Your task to perform on an android device: Is it going to rain tomorrow? Image 0: 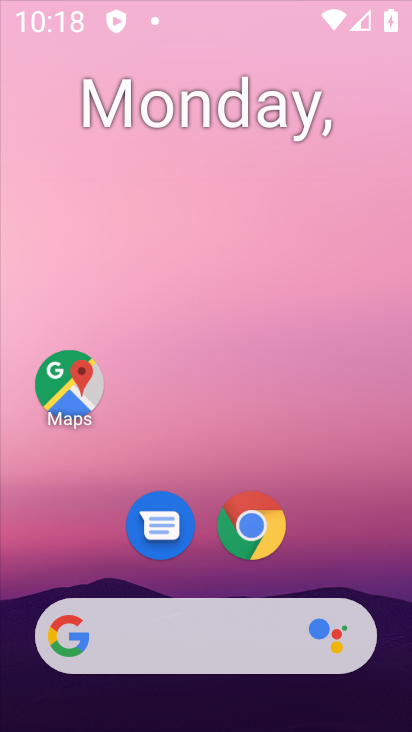
Step 0: click (60, 385)
Your task to perform on an android device: Is it going to rain tomorrow? Image 1: 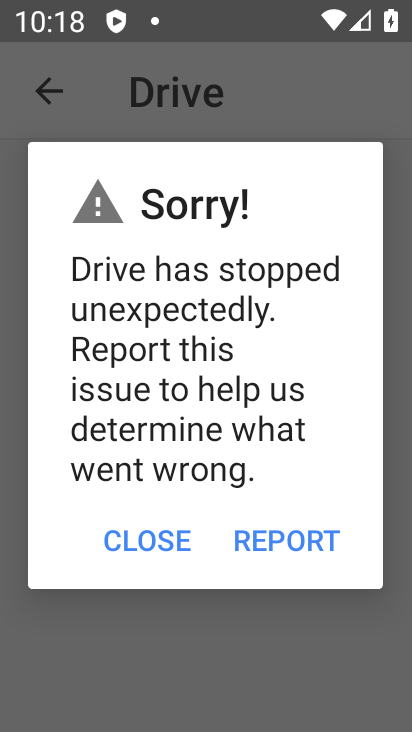
Step 1: click (150, 536)
Your task to perform on an android device: Is it going to rain tomorrow? Image 2: 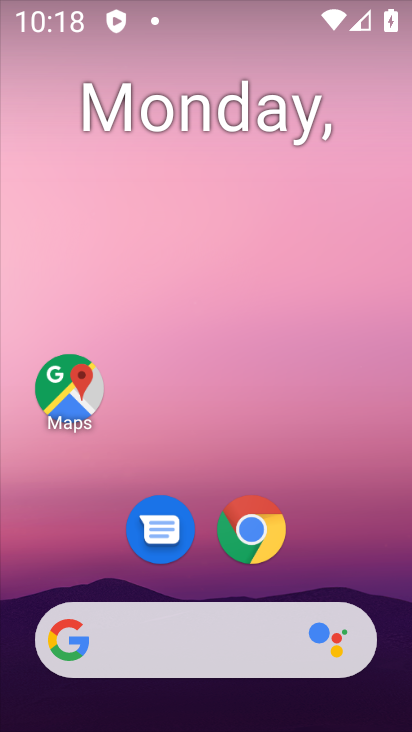
Step 2: click (215, 633)
Your task to perform on an android device: Is it going to rain tomorrow? Image 3: 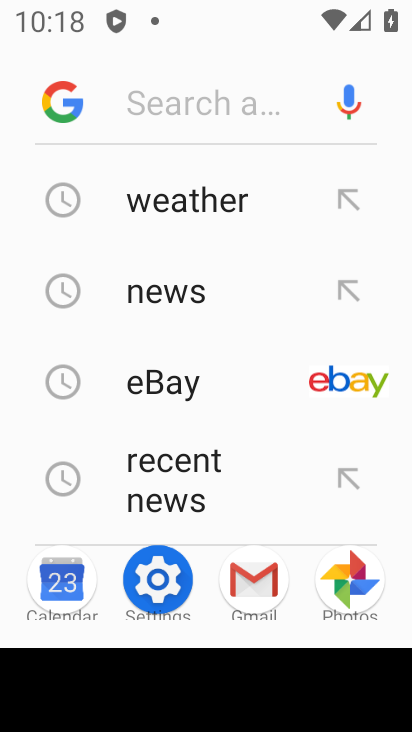
Step 3: click (172, 201)
Your task to perform on an android device: Is it going to rain tomorrow? Image 4: 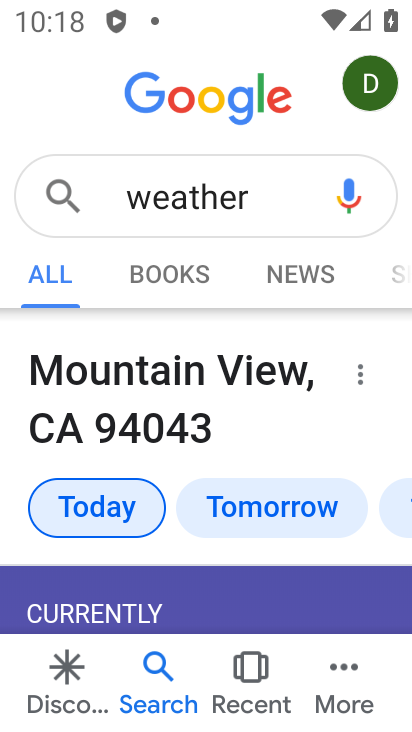
Step 4: click (241, 500)
Your task to perform on an android device: Is it going to rain tomorrow? Image 5: 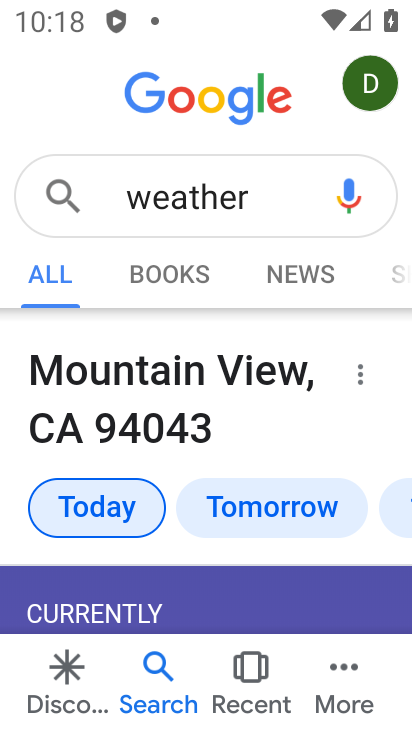
Step 5: click (241, 500)
Your task to perform on an android device: Is it going to rain tomorrow? Image 6: 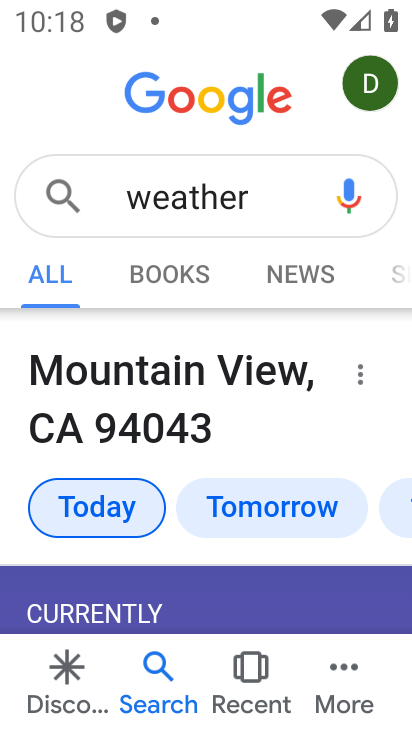
Step 6: click (241, 500)
Your task to perform on an android device: Is it going to rain tomorrow? Image 7: 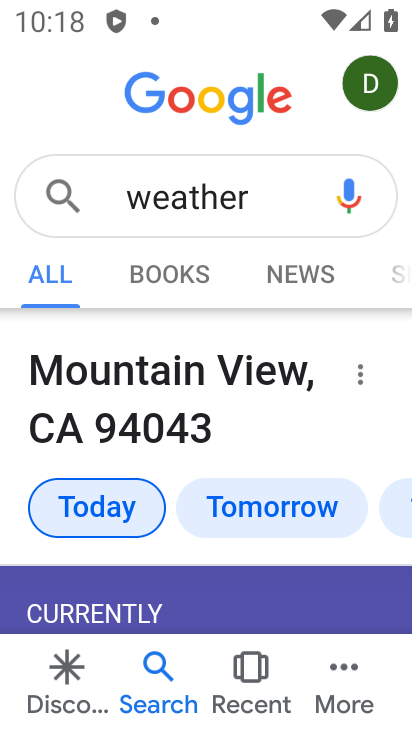
Step 7: click (241, 500)
Your task to perform on an android device: Is it going to rain tomorrow? Image 8: 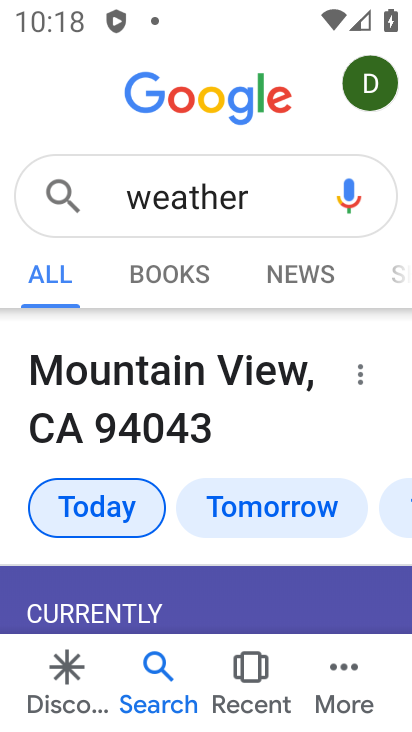
Step 8: click (241, 500)
Your task to perform on an android device: Is it going to rain tomorrow? Image 9: 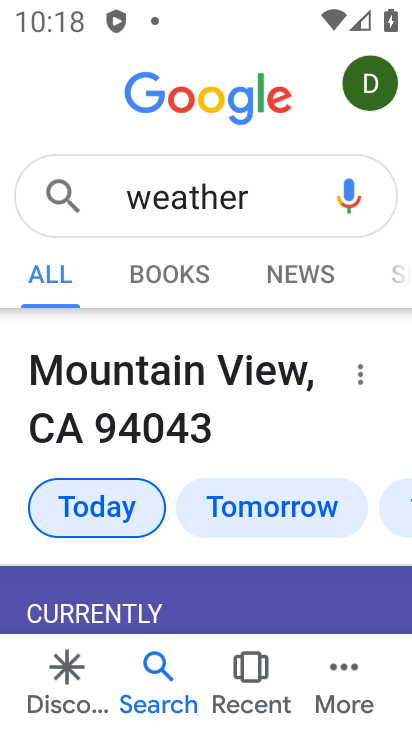
Step 9: click (241, 500)
Your task to perform on an android device: Is it going to rain tomorrow? Image 10: 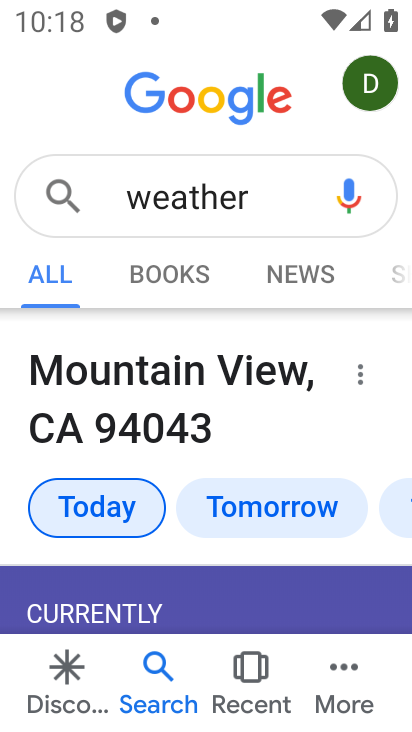
Step 10: click (241, 500)
Your task to perform on an android device: Is it going to rain tomorrow? Image 11: 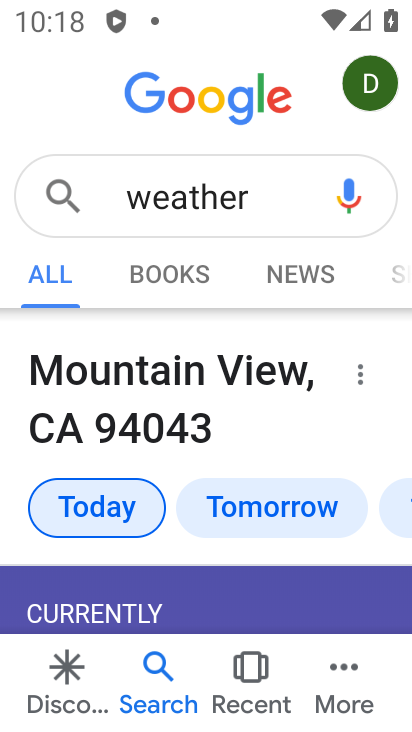
Step 11: click (241, 500)
Your task to perform on an android device: Is it going to rain tomorrow? Image 12: 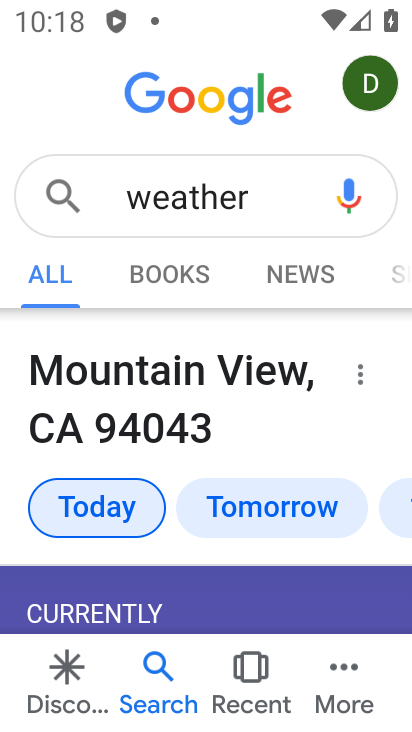
Step 12: click (241, 500)
Your task to perform on an android device: Is it going to rain tomorrow? Image 13: 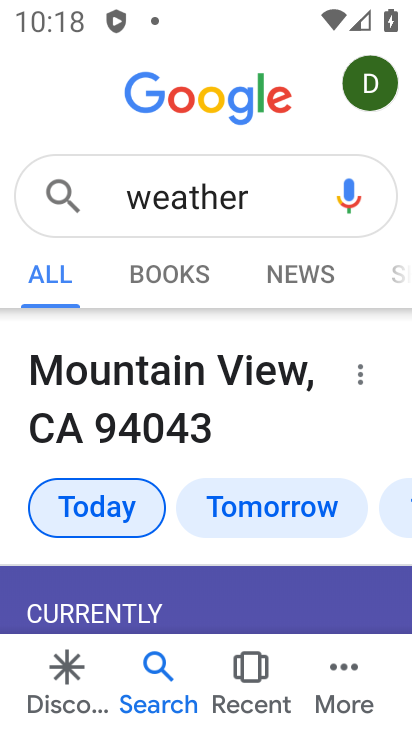
Step 13: click (241, 500)
Your task to perform on an android device: Is it going to rain tomorrow? Image 14: 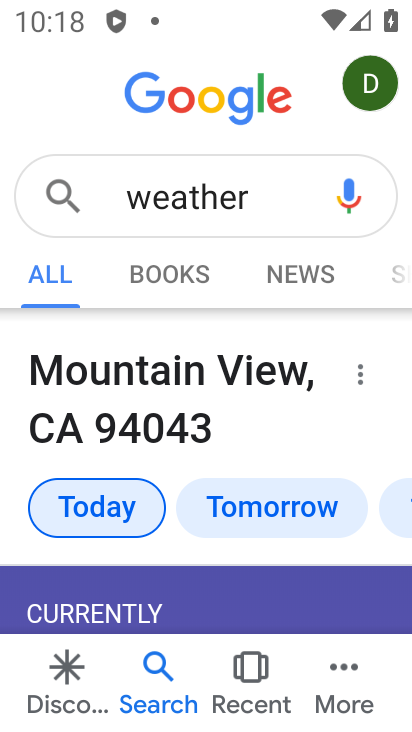
Step 14: click (241, 500)
Your task to perform on an android device: Is it going to rain tomorrow? Image 15: 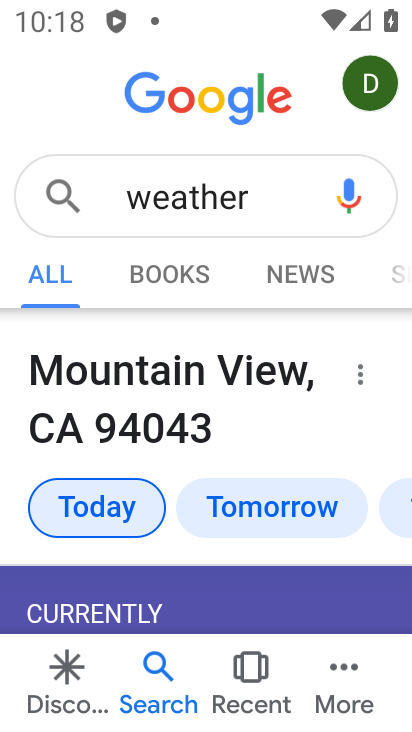
Step 15: click (241, 500)
Your task to perform on an android device: Is it going to rain tomorrow? Image 16: 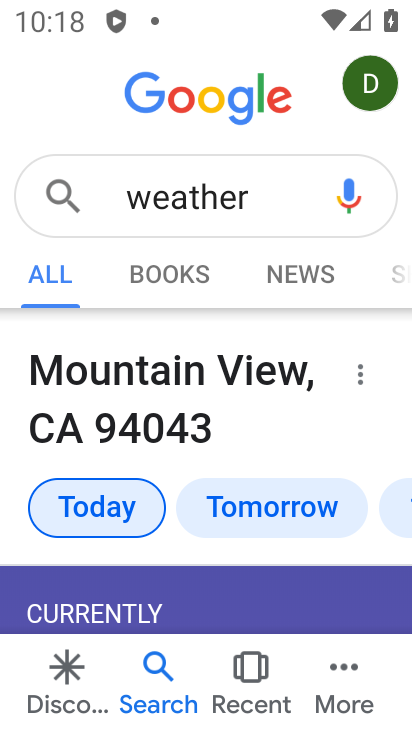
Step 16: click (241, 500)
Your task to perform on an android device: Is it going to rain tomorrow? Image 17: 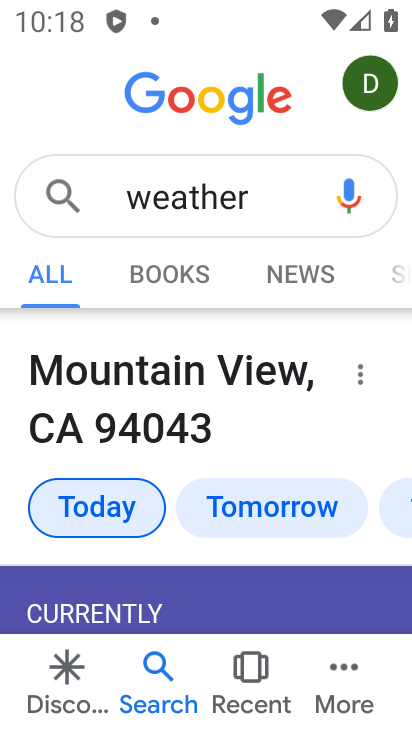
Step 17: click (241, 500)
Your task to perform on an android device: Is it going to rain tomorrow? Image 18: 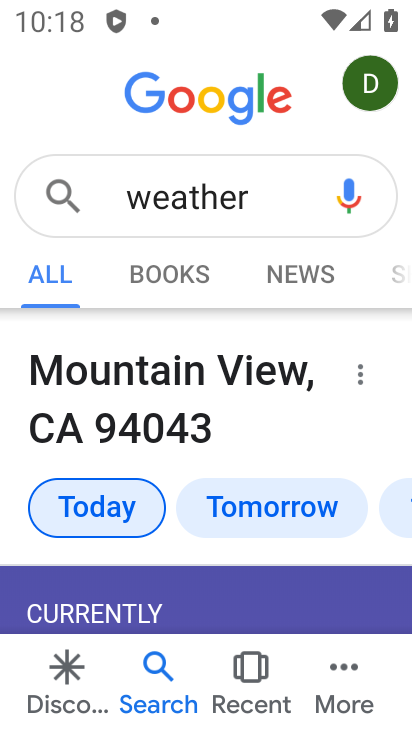
Step 18: click (241, 500)
Your task to perform on an android device: Is it going to rain tomorrow? Image 19: 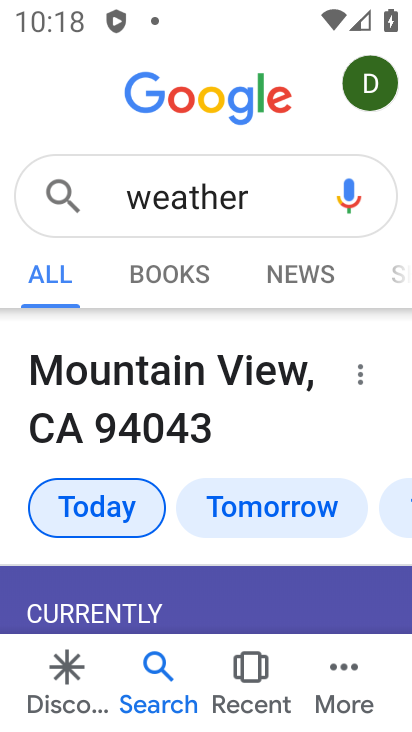
Step 19: click (241, 500)
Your task to perform on an android device: Is it going to rain tomorrow? Image 20: 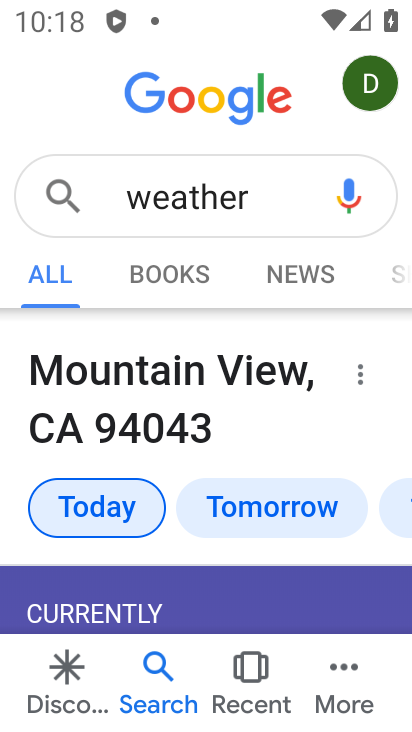
Step 20: click (241, 500)
Your task to perform on an android device: Is it going to rain tomorrow? Image 21: 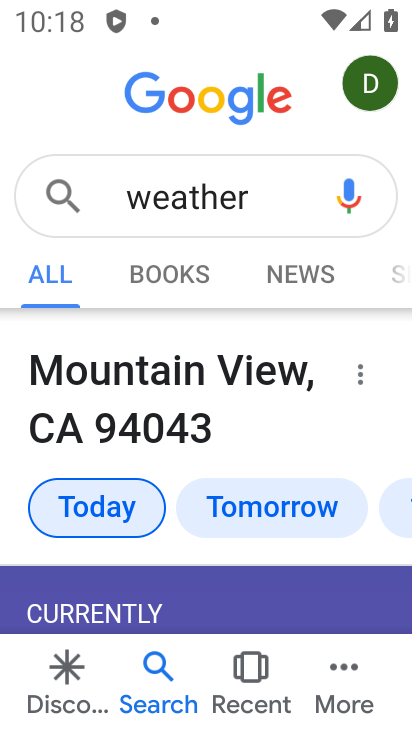
Step 21: click (241, 500)
Your task to perform on an android device: Is it going to rain tomorrow? Image 22: 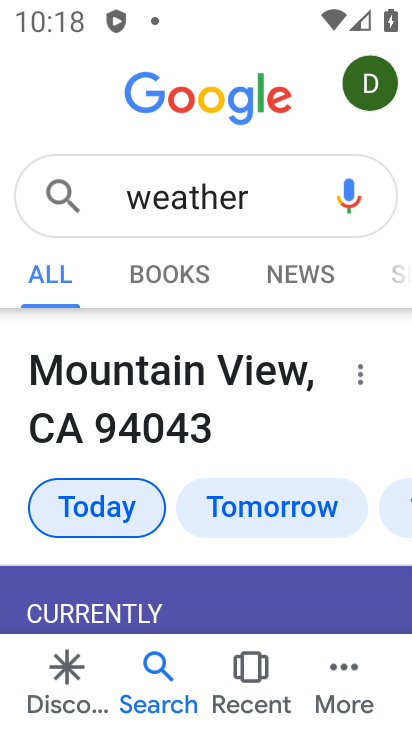
Step 22: click (314, 516)
Your task to perform on an android device: Is it going to rain tomorrow? Image 23: 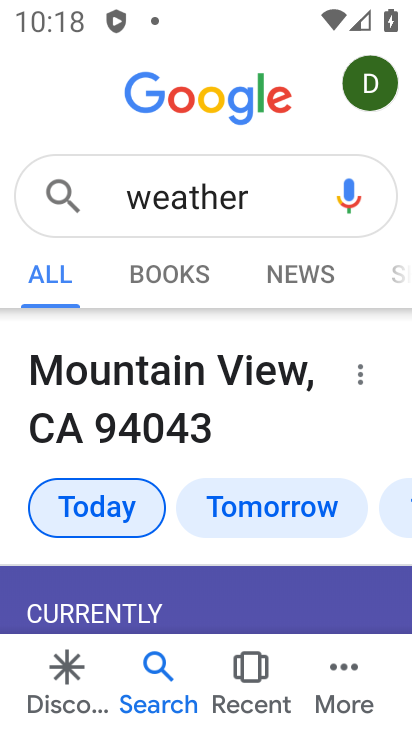
Step 23: click (314, 516)
Your task to perform on an android device: Is it going to rain tomorrow? Image 24: 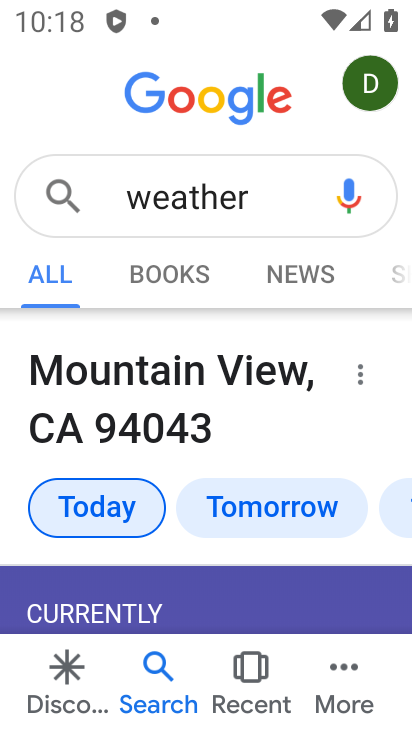
Step 24: click (314, 516)
Your task to perform on an android device: Is it going to rain tomorrow? Image 25: 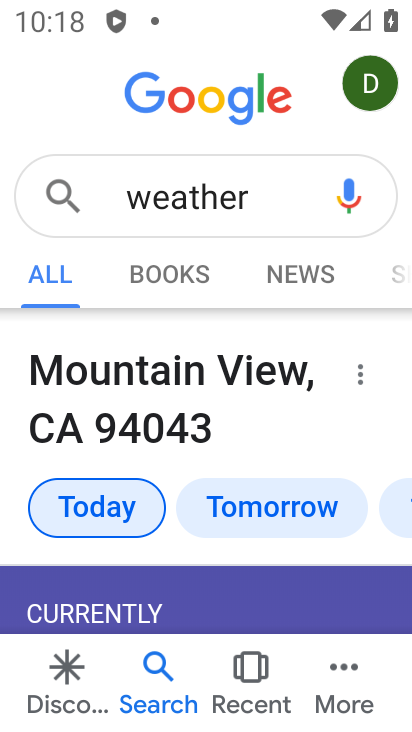
Step 25: click (314, 516)
Your task to perform on an android device: Is it going to rain tomorrow? Image 26: 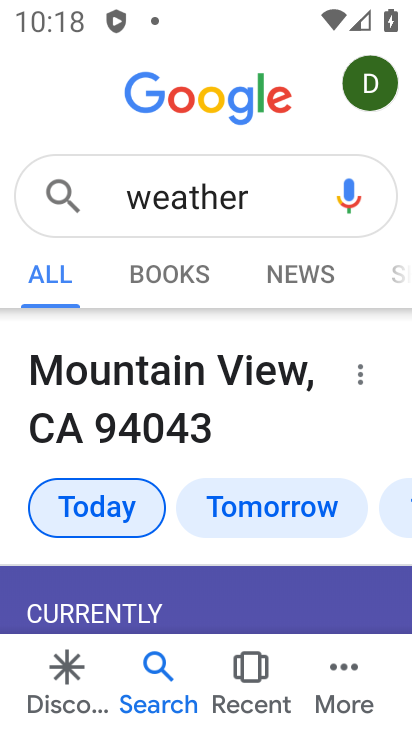
Step 26: click (314, 516)
Your task to perform on an android device: Is it going to rain tomorrow? Image 27: 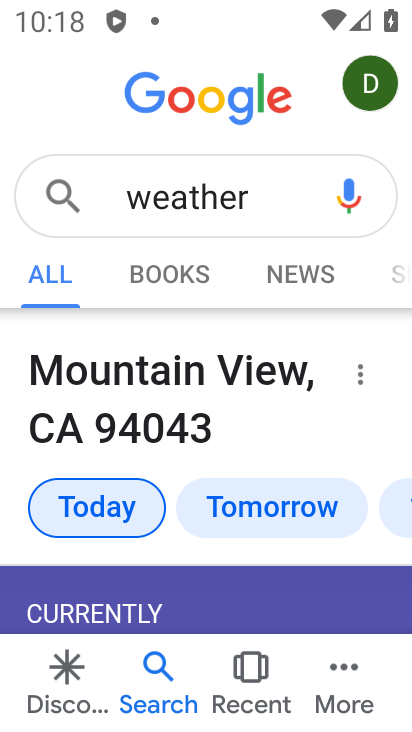
Step 27: click (314, 516)
Your task to perform on an android device: Is it going to rain tomorrow? Image 28: 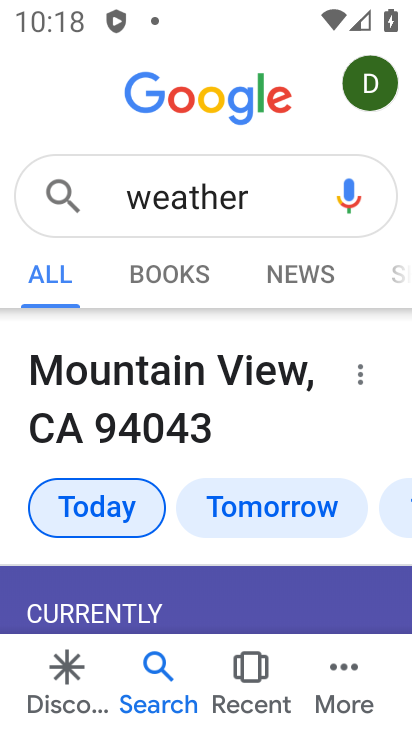
Step 28: click (314, 516)
Your task to perform on an android device: Is it going to rain tomorrow? Image 29: 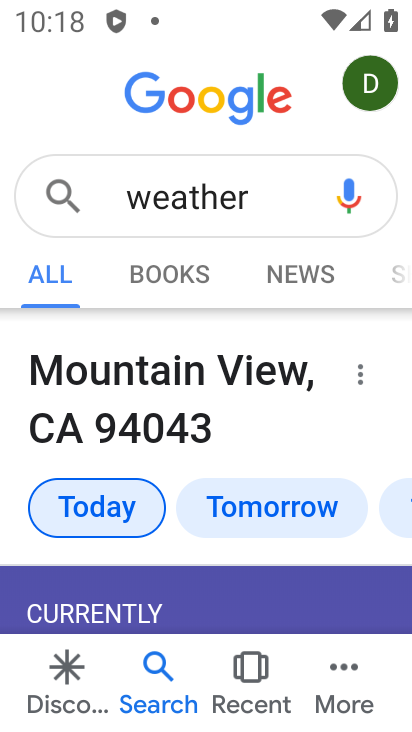
Step 29: click (314, 516)
Your task to perform on an android device: Is it going to rain tomorrow? Image 30: 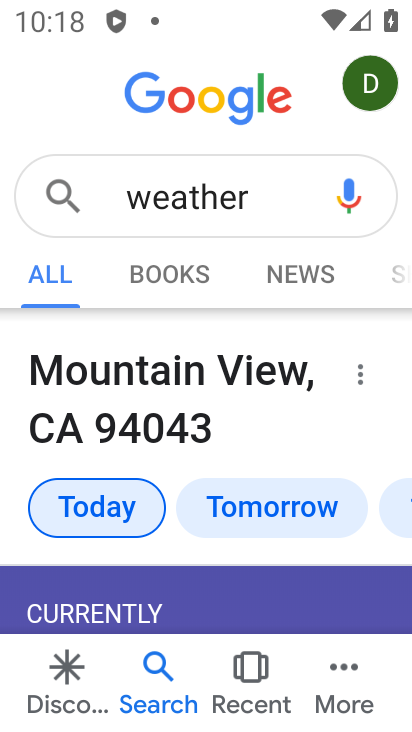
Step 30: click (314, 516)
Your task to perform on an android device: Is it going to rain tomorrow? Image 31: 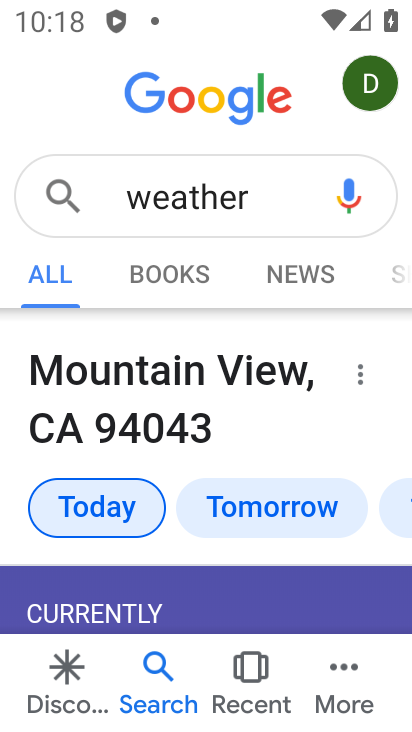
Step 31: drag from (314, 516) to (285, 219)
Your task to perform on an android device: Is it going to rain tomorrow? Image 32: 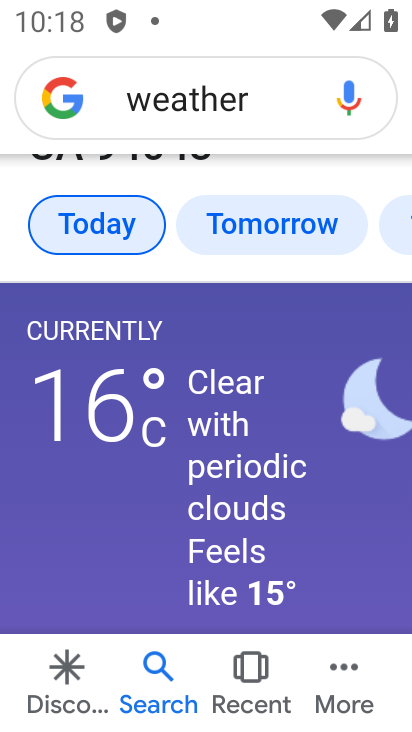
Step 32: click (309, 175)
Your task to perform on an android device: Is it going to rain tomorrow? Image 33: 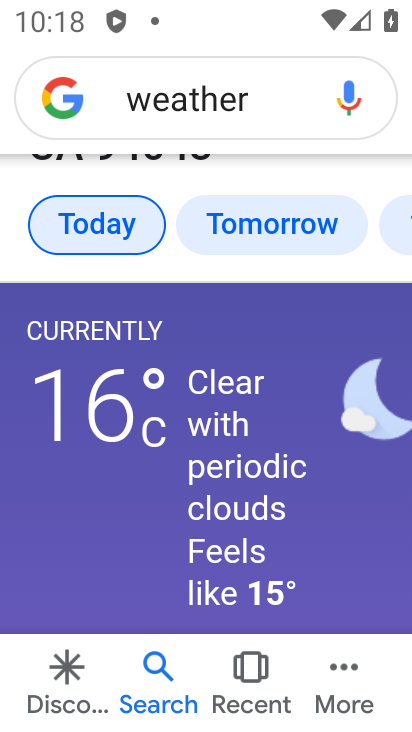
Step 33: click (259, 212)
Your task to perform on an android device: Is it going to rain tomorrow? Image 34: 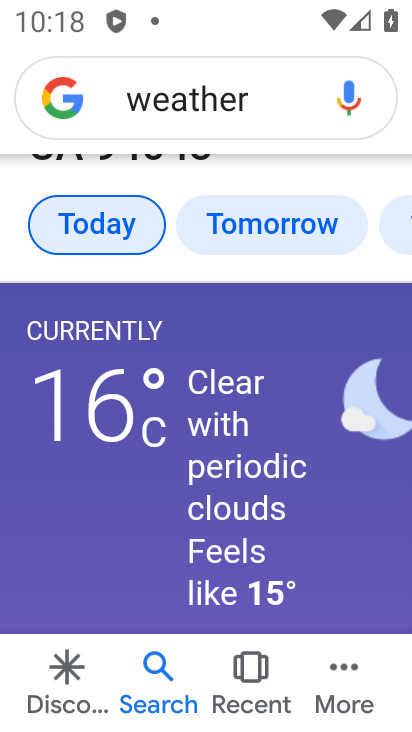
Step 34: click (259, 235)
Your task to perform on an android device: Is it going to rain tomorrow? Image 35: 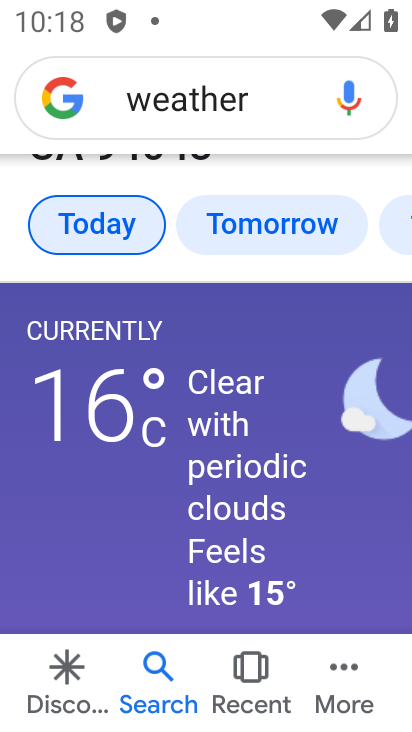
Step 35: click (259, 235)
Your task to perform on an android device: Is it going to rain tomorrow? Image 36: 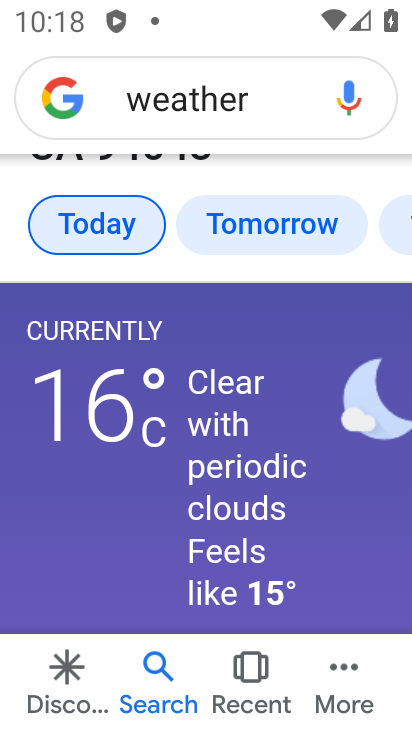
Step 36: click (259, 235)
Your task to perform on an android device: Is it going to rain tomorrow? Image 37: 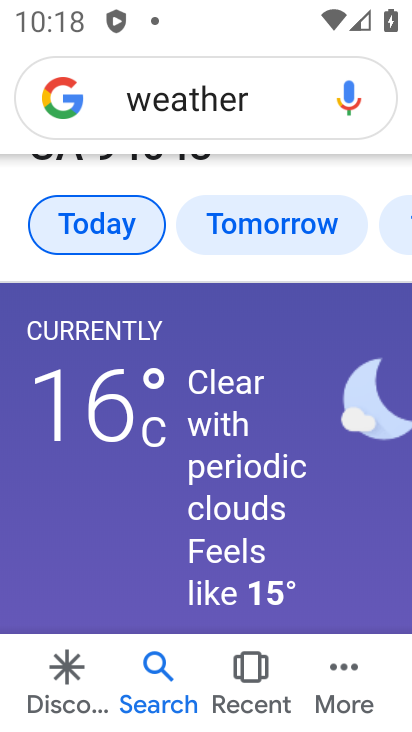
Step 37: click (259, 235)
Your task to perform on an android device: Is it going to rain tomorrow? Image 38: 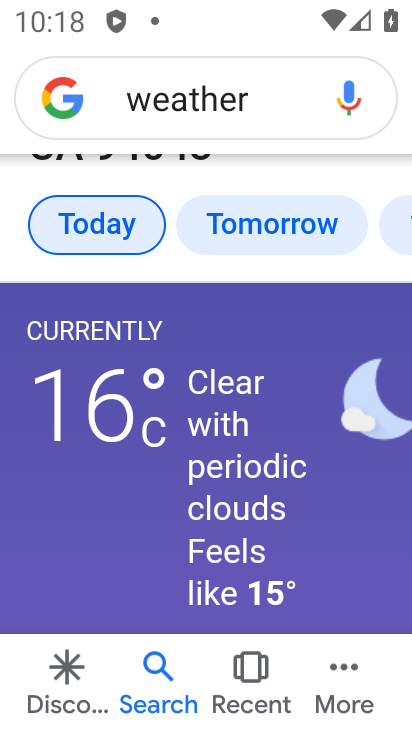
Step 38: click (259, 235)
Your task to perform on an android device: Is it going to rain tomorrow? Image 39: 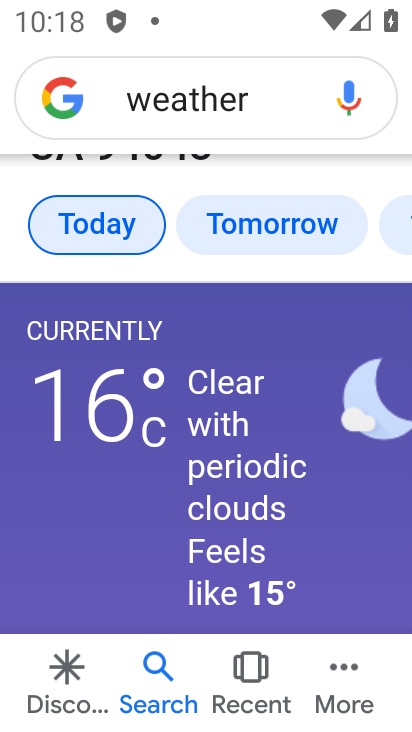
Step 39: click (259, 235)
Your task to perform on an android device: Is it going to rain tomorrow? Image 40: 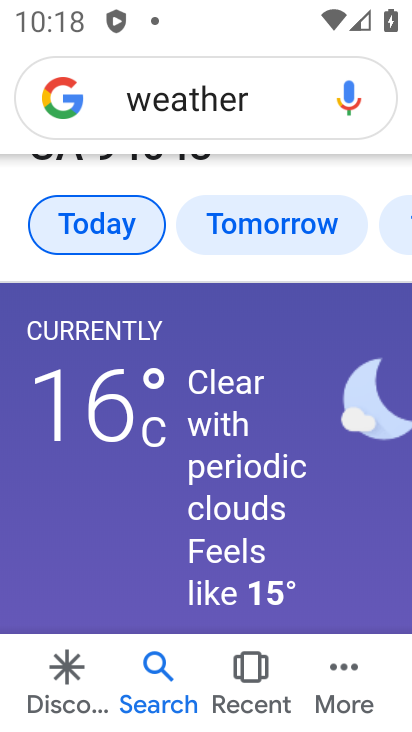
Step 40: click (259, 235)
Your task to perform on an android device: Is it going to rain tomorrow? Image 41: 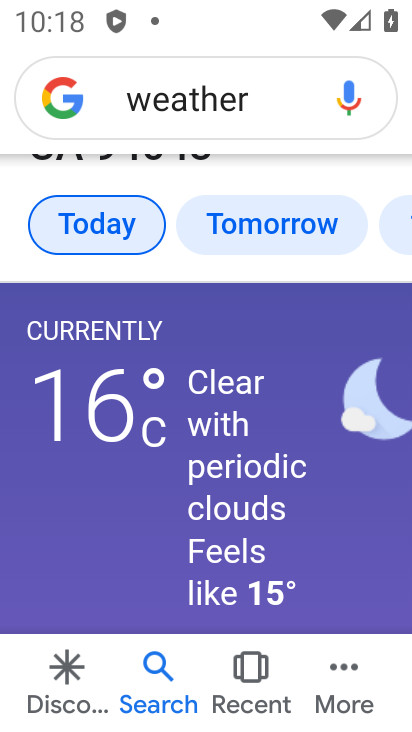
Step 41: click (259, 235)
Your task to perform on an android device: Is it going to rain tomorrow? Image 42: 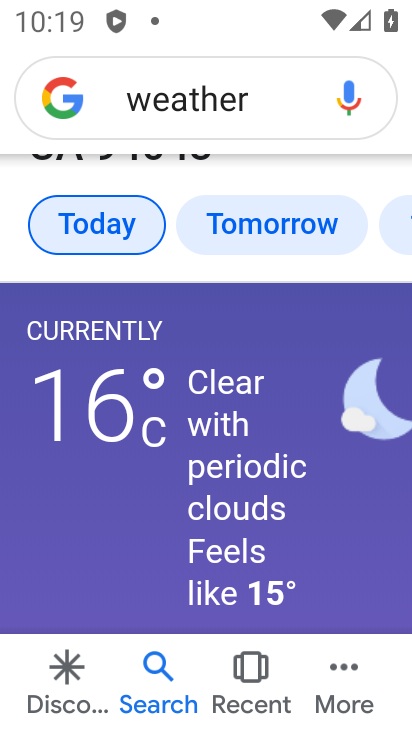
Step 42: task complete